Your task to perform on an android device: Go to sound settings Image 0: 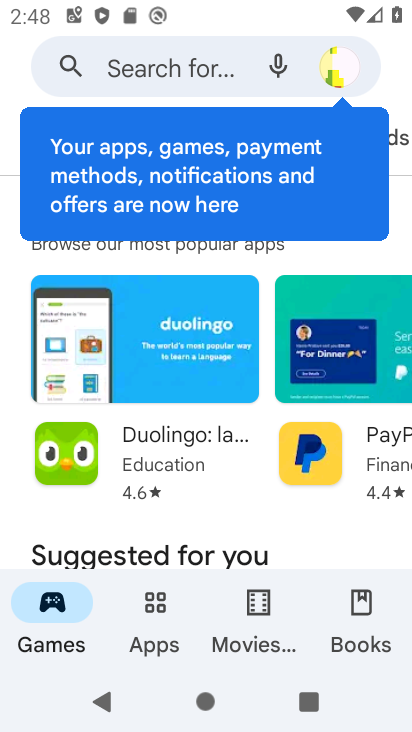
Step 0: press home button
Your task to perform on an android device: Go to sound settings Image 1: 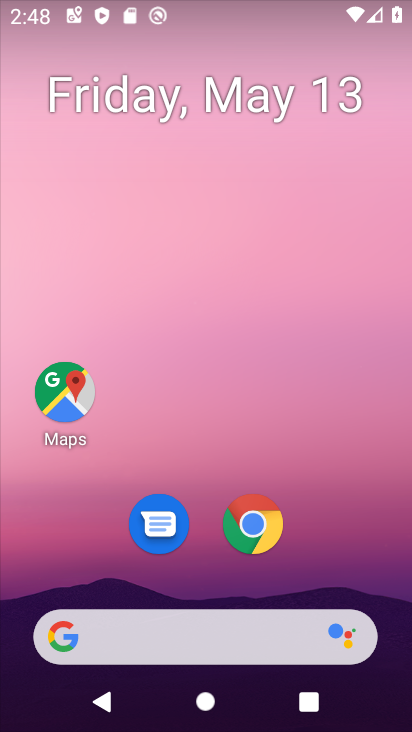
Step 1: drag from (300, 539) to (305, 53)
Your task to perform on an android device: Go to sound settings Image 2: 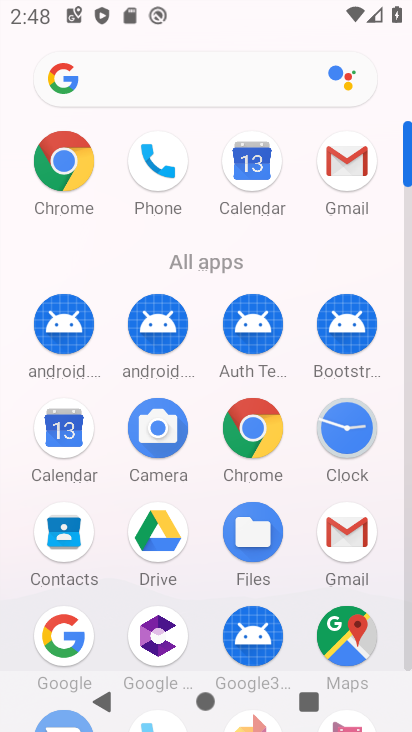
Step 2: drag from (190, 561) to (257, 131)
Your task to perform on an android device: Go to sound settings Image 3: 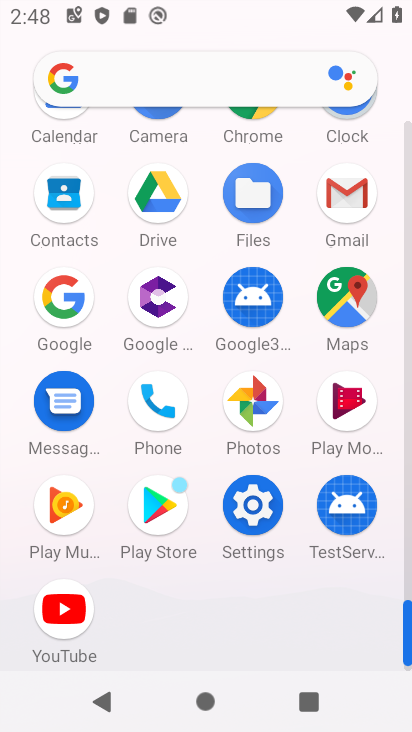
Step 3: click (252, 492)
Your task to perform on an android device: Go to sound settings Image 4: 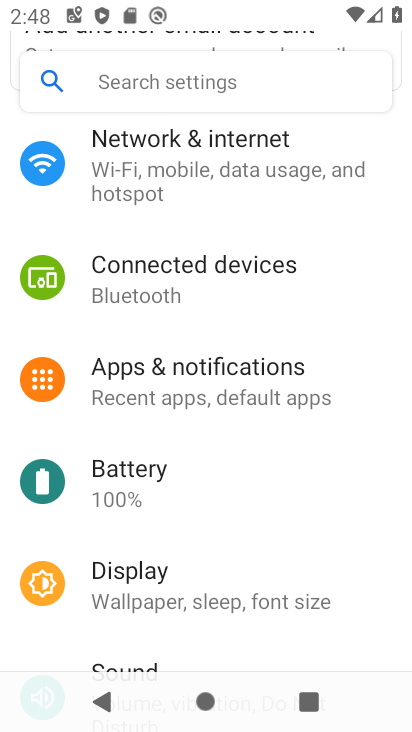
Step 4: drag from (252, 492) to (302, 28)
Your task to perform on an android device: Go to sound settings Image 5: 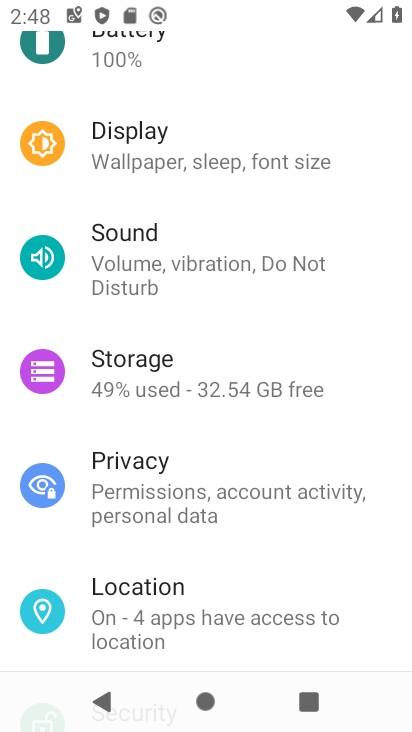
Step 5: click (243, 263)
Your task to perform on an android device: Go to sound settings Image 6: 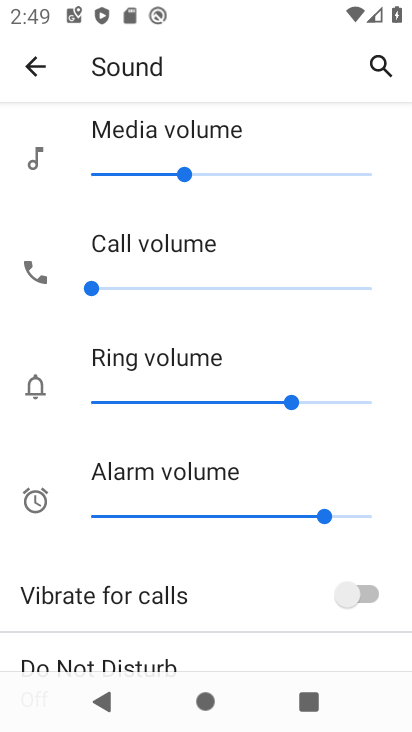
Step 6: task complete